Your task to perform on an android device: Open calendar and show me the third week of next month Image 0: 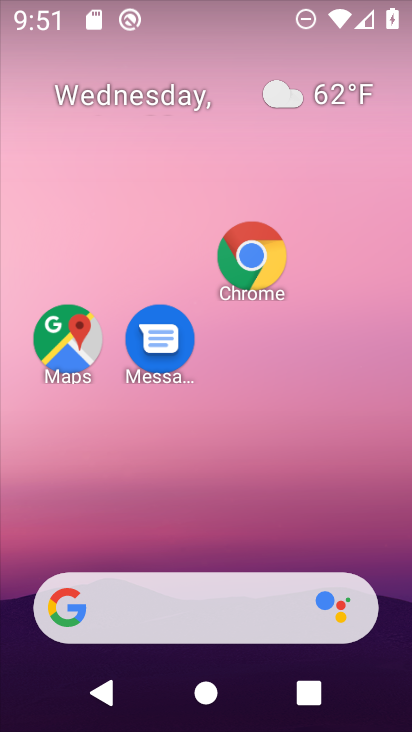
Step 0: drag from (235, 470) to (202, 86)
Your task to perform on an android device: Open calendar and show me the third week of next month Image 1: 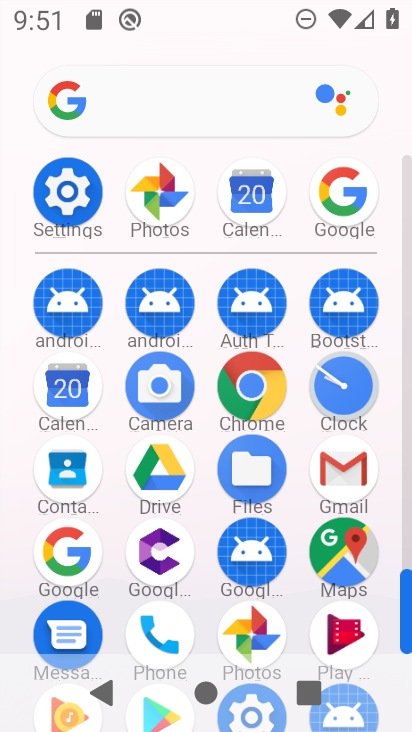
Step 1: click (66, 391)
Your task to perform on an android device: Open calendar and show me the third week of next month Image 2: 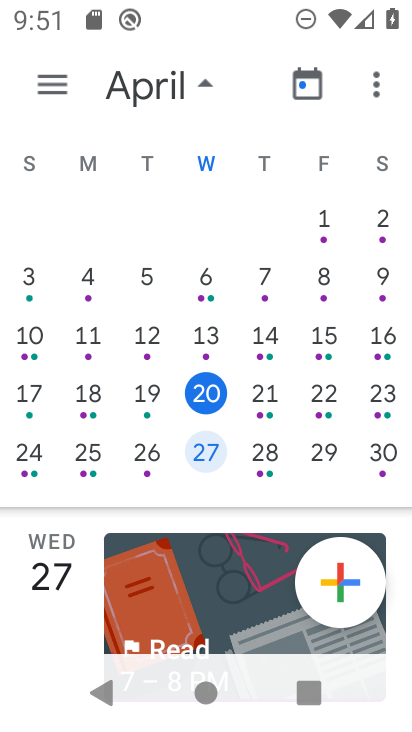
Step 2: drag from (363, 484) to (17, 444)
Your task to perform on an android device: Open calendar and show me the third week of next month Image 3: 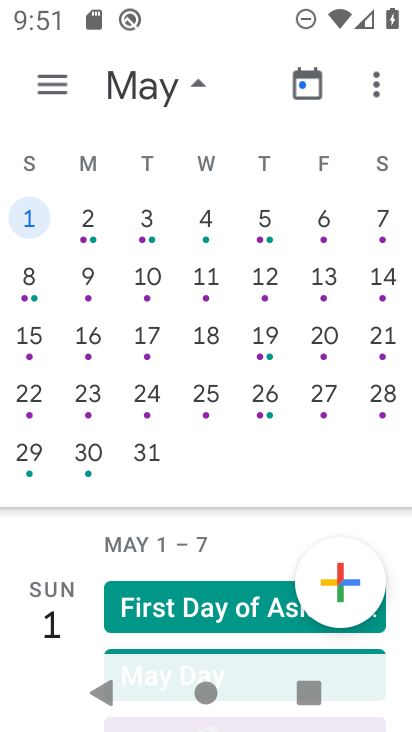
Step 3: click (146, 335)
Your task to perform on an android device: Open calendar and show me the third week of next month Image 4: 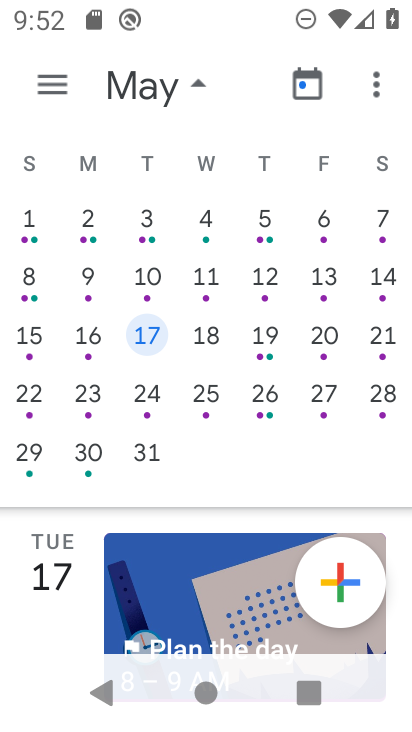
Step 4: task complete